Your task to perform on an android device: turn off airplane mode Image 0: 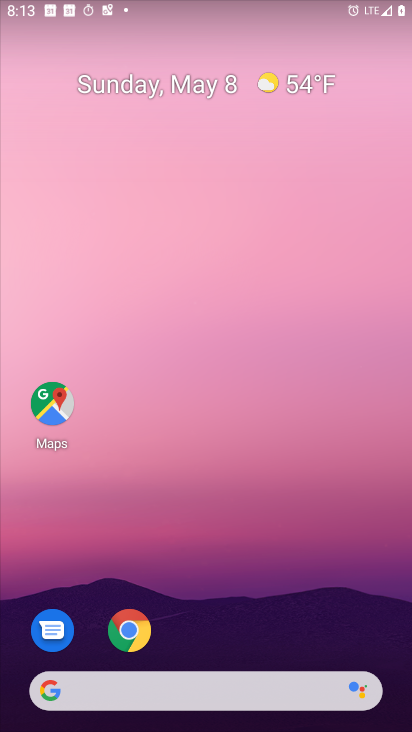
Step 0: drag from (209, 647) to (173, 0)
Your task to perform on an android device: turn off airplane mode Image 1: 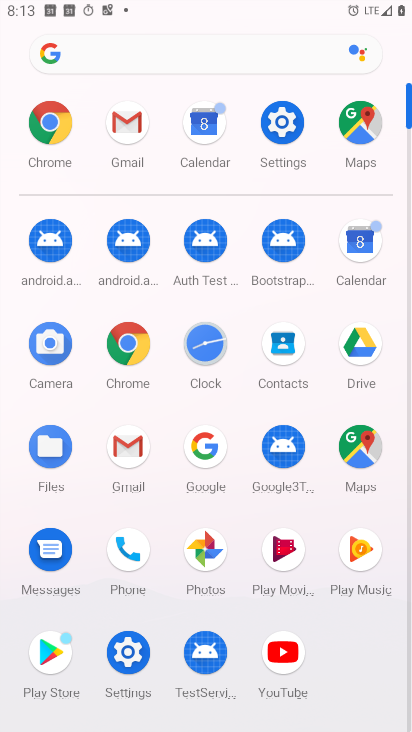
Step 1: click (291, 131)
Your task to perform on an android device: turn off airplane mode Image 2: 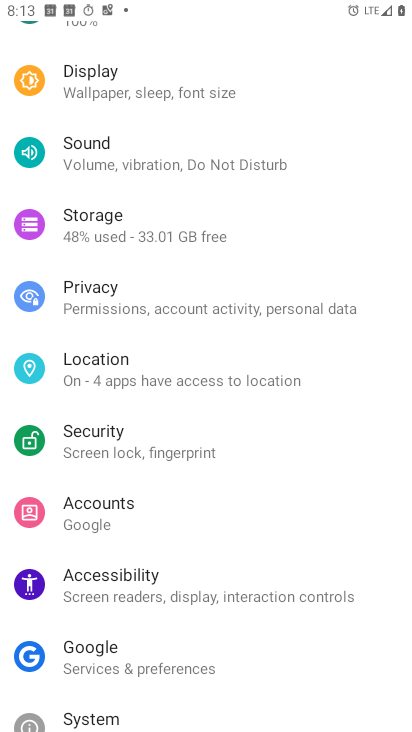
Step 2: drag from (245, 139) to (224, 702)
Your task to perform on an android device: turn off airplane mode Image 3: 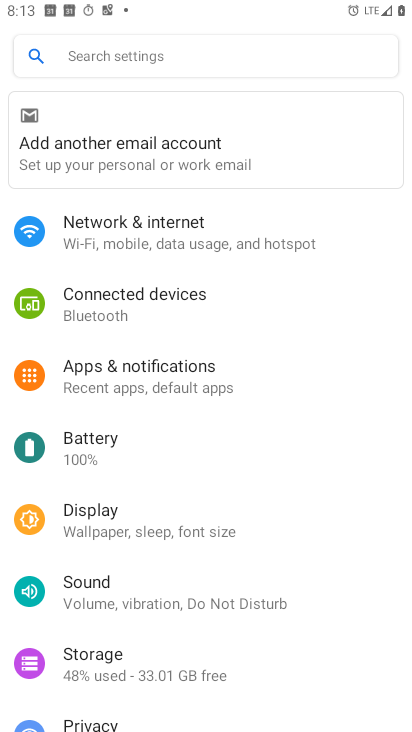
Step 3: click (108, 218)
Your task to perform on an android device: turn off airplane mode Image 4: 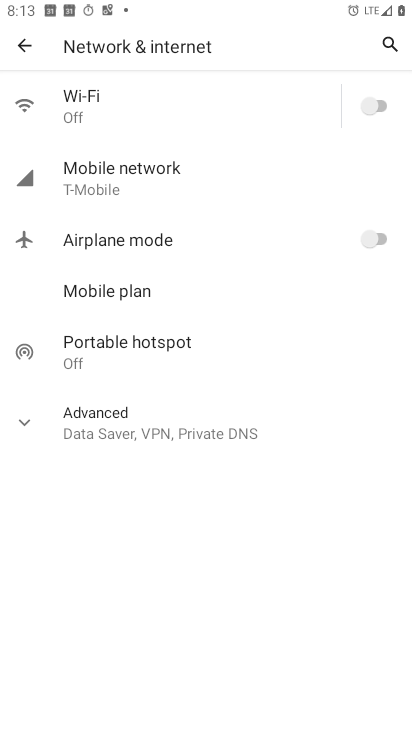
Step 4: click (185, 225)
Your task to perform on an android device: turn off airplane mode Image 5: 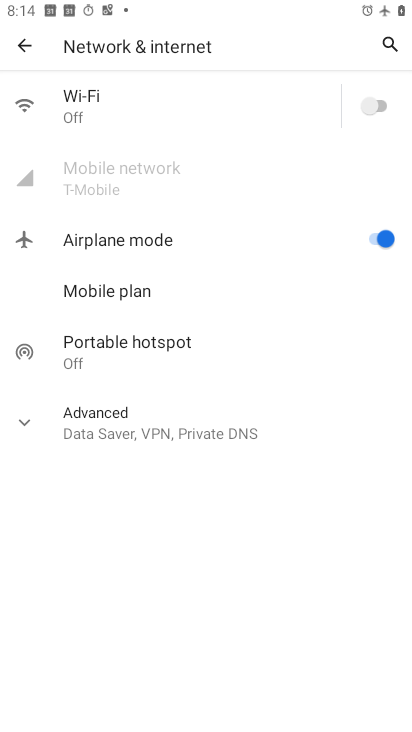
Step 5: click (187, 227)
Your task to perform on an android device: turn off airplane mode Image 6: 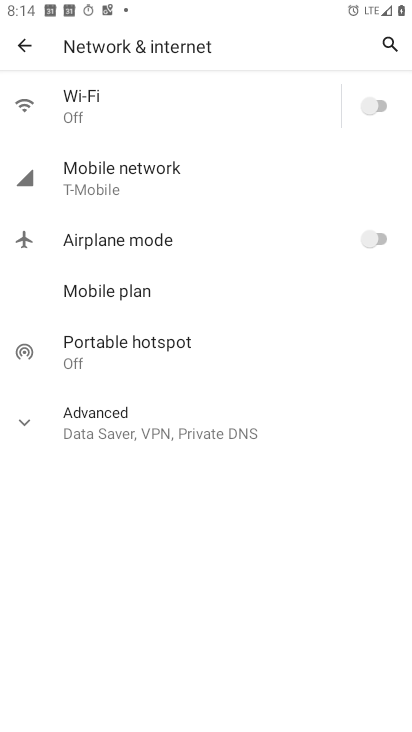
Step 6: task complete